Your task to perform on an android device: toggle wifi Image 0: 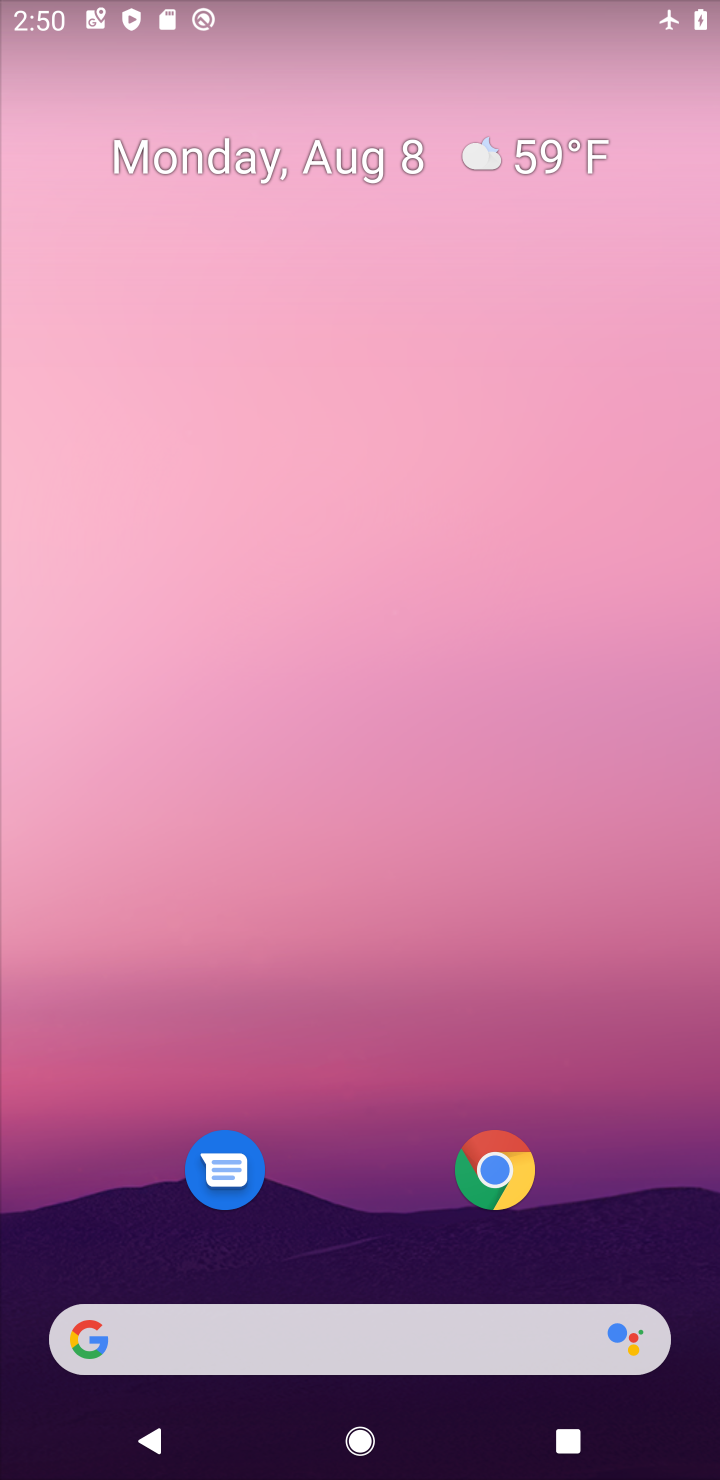
Step 0: drag from (333, 943) to (333, 412)
Your task to perform on an android device: toggle wifi Image 1: 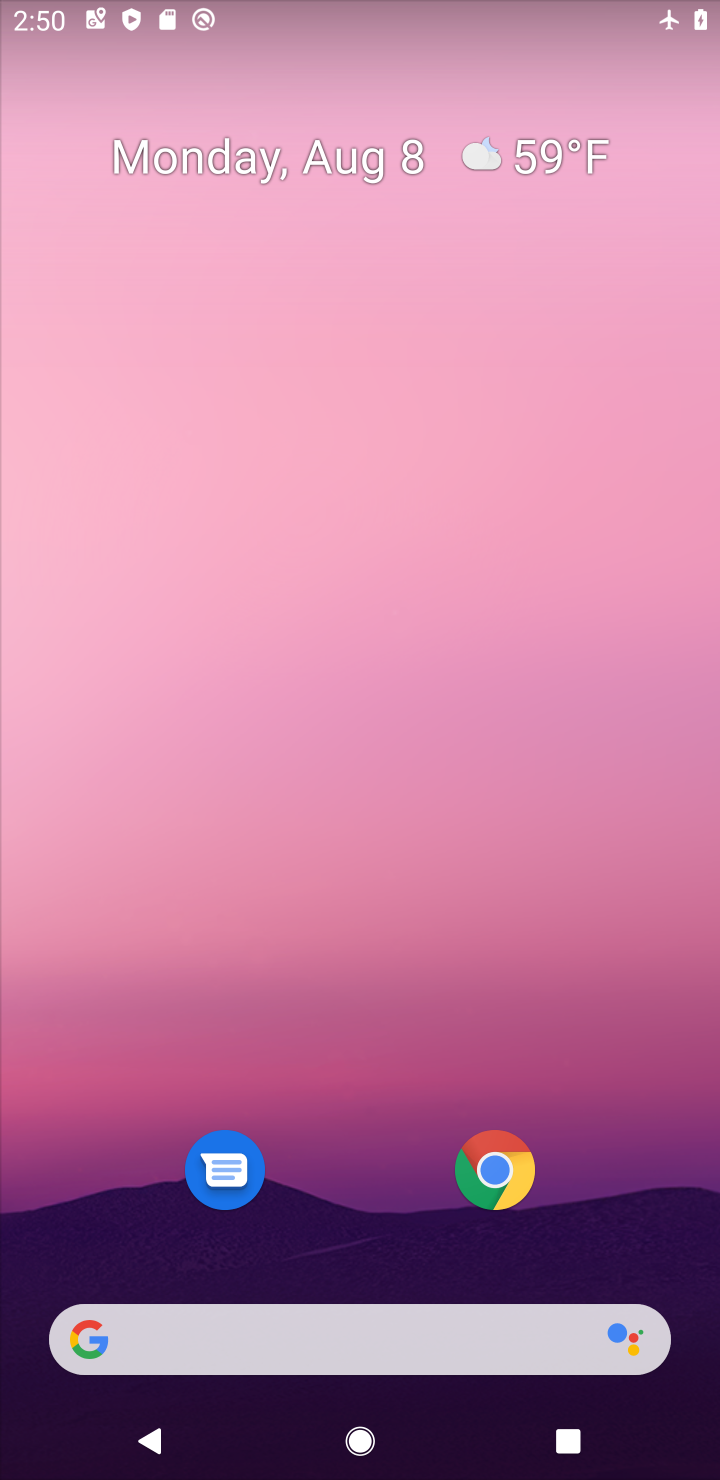
Step 1: drag from (338, 814) to (338, 366)
Your task to perform on an android device: toggle wifi Image 2: 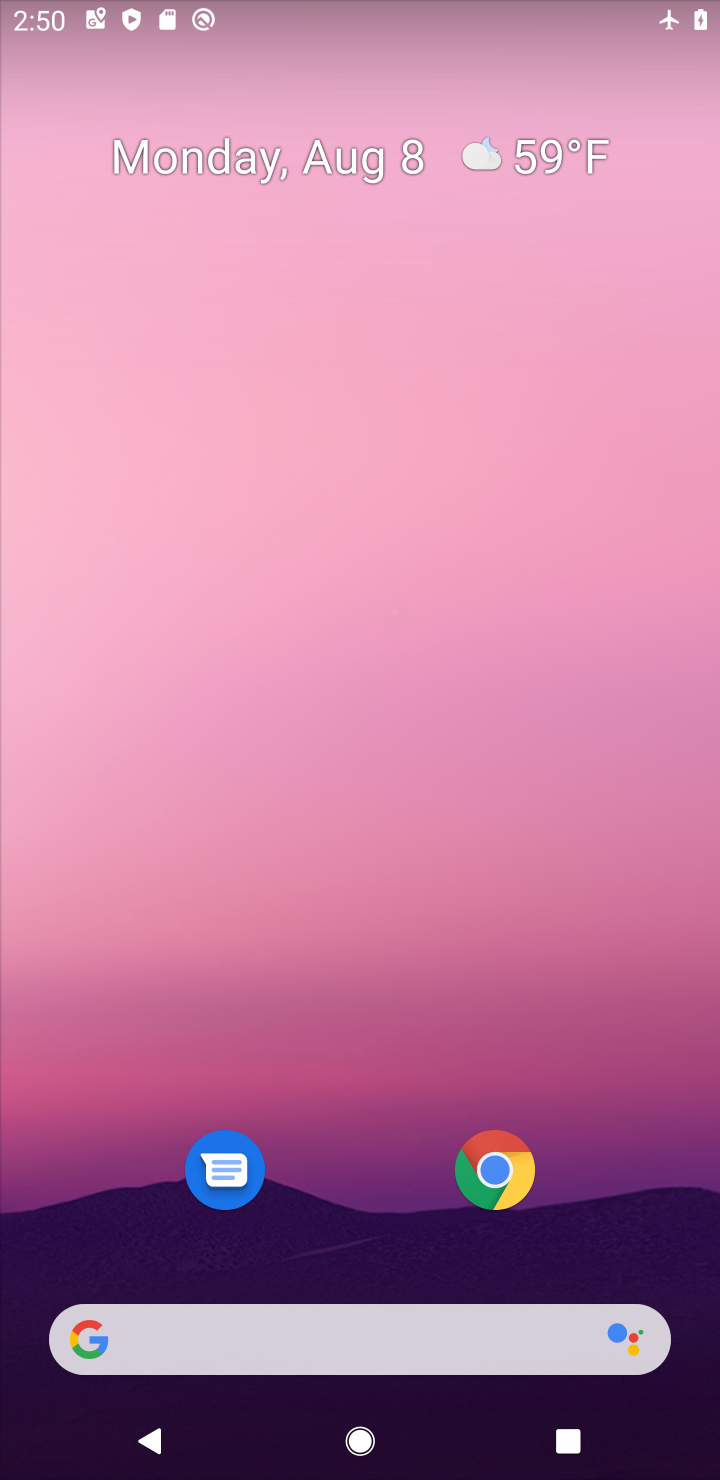
Step 2: drag from (367, 783) to (372, 373)
Your task to perform on an android device: toggle wifi Image 3: 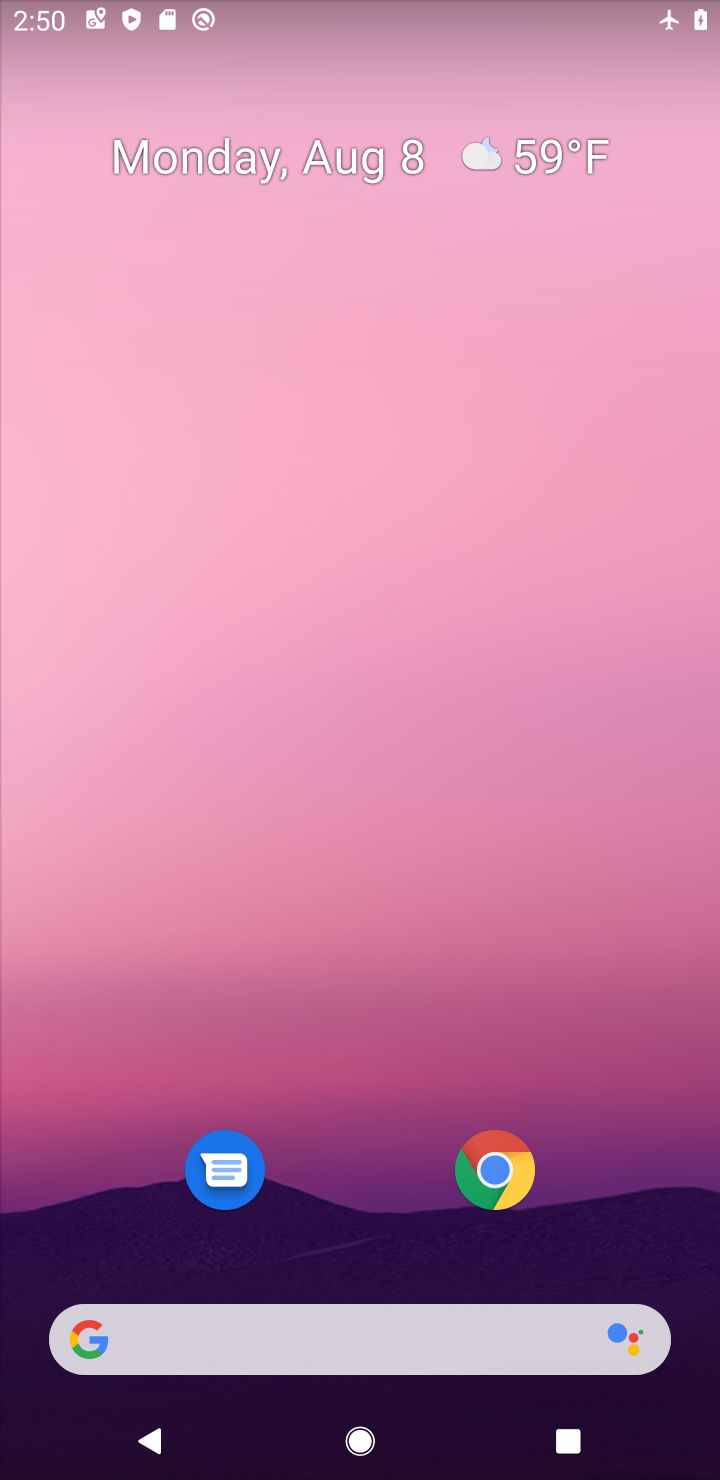
Step 3: drag from (305, 1151) to (373, 561)
Your task to perform on an android device: toggle wifi Image 4: 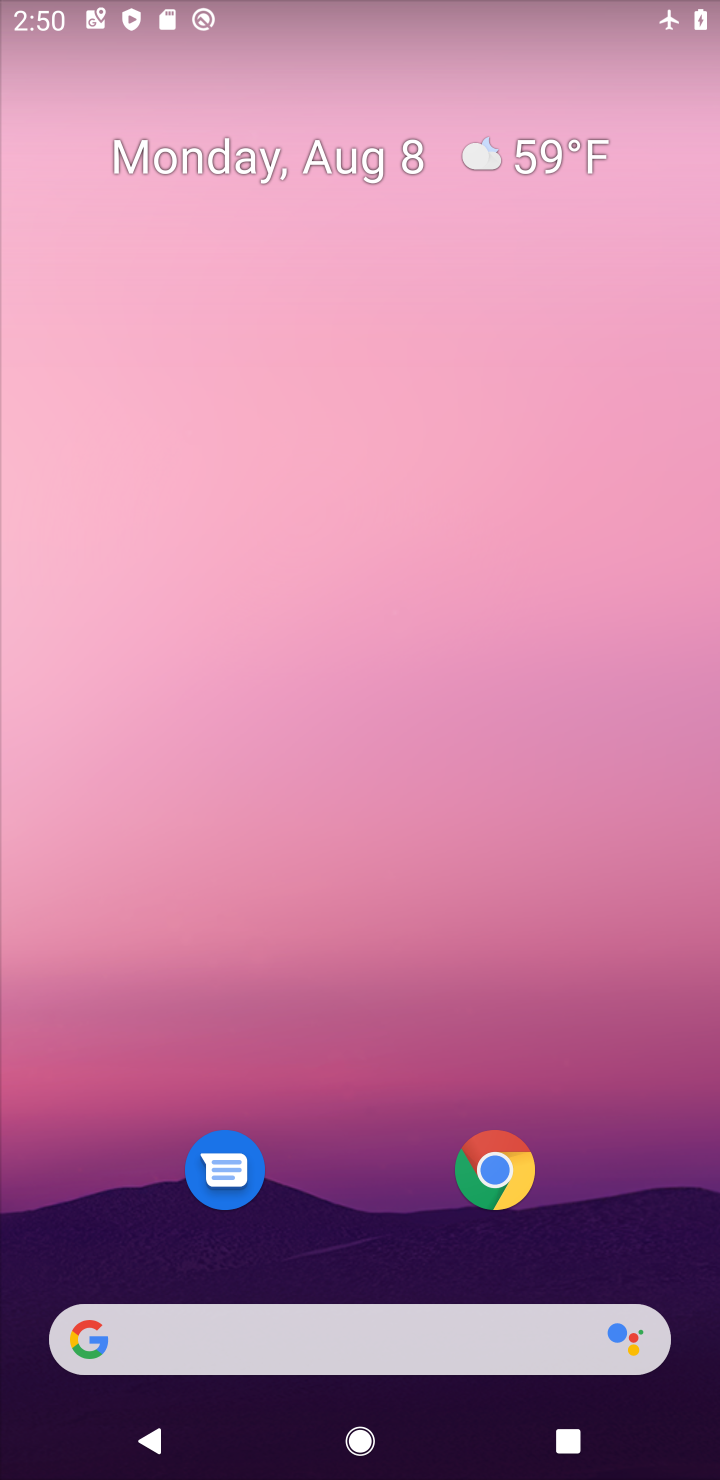
Step 4: drag from (399, 929) to (386, 319)
Your task to perform on an android device: toggle wifi Image 5: 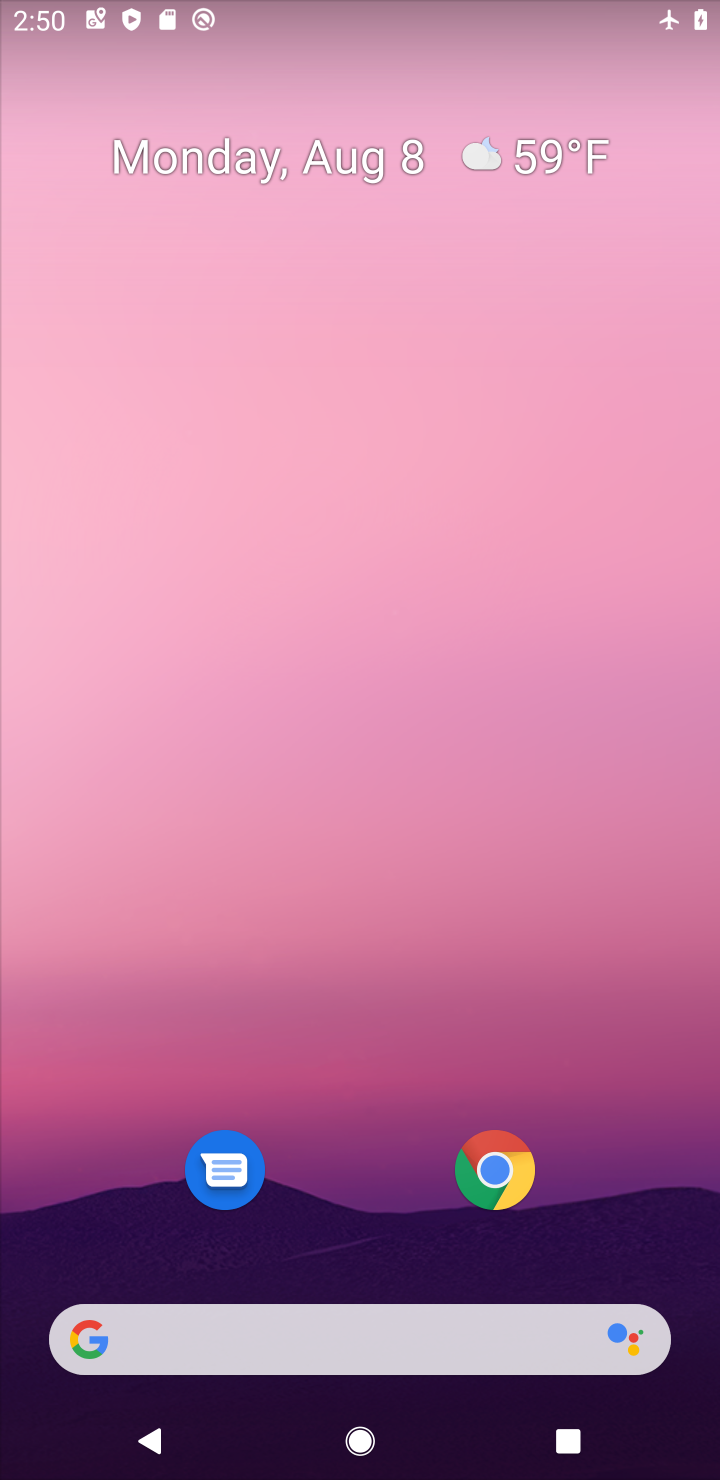
Step 5: drag from (338, 1210) to (349, 264)
Your task to perform on an android device: toggle wifi Image 6: 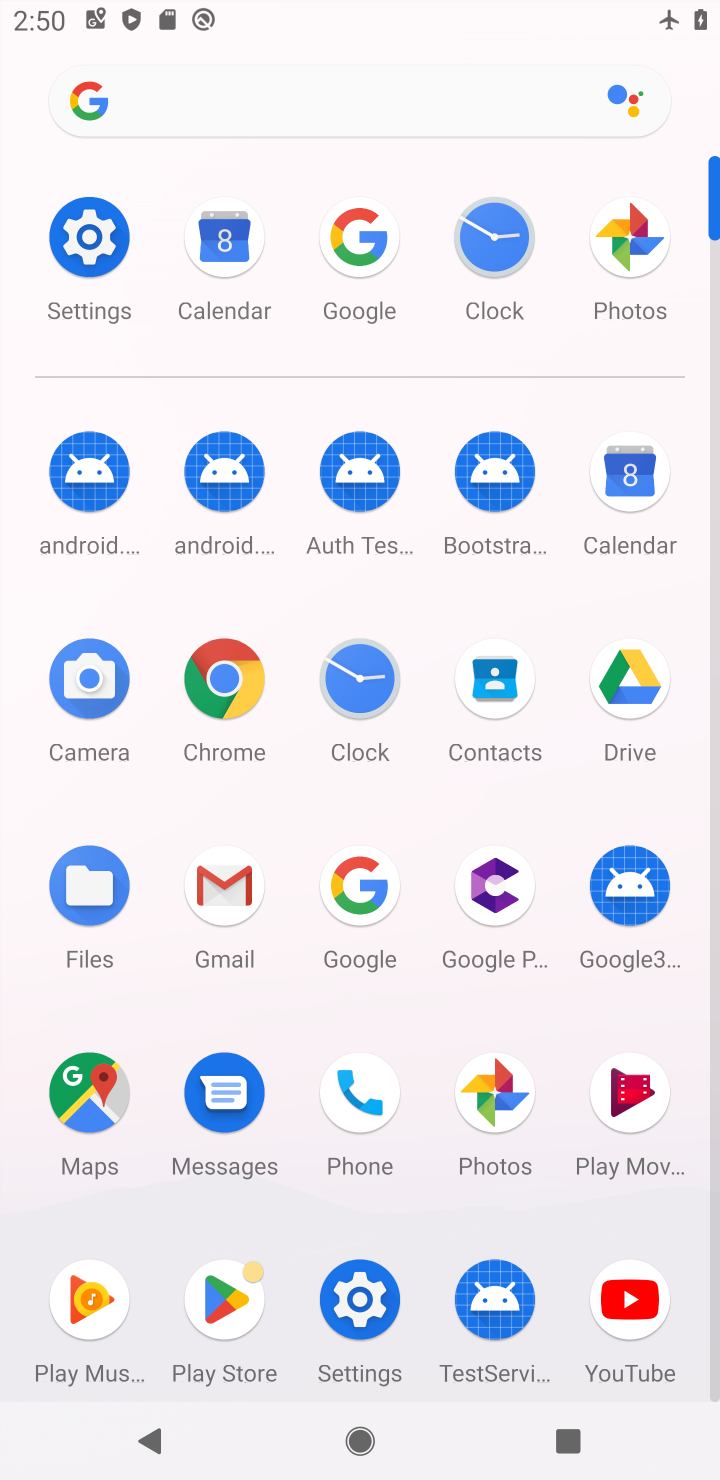
Step 6: click (121, 224)
Your task to perform on an android device: toggle wifi Image 7: 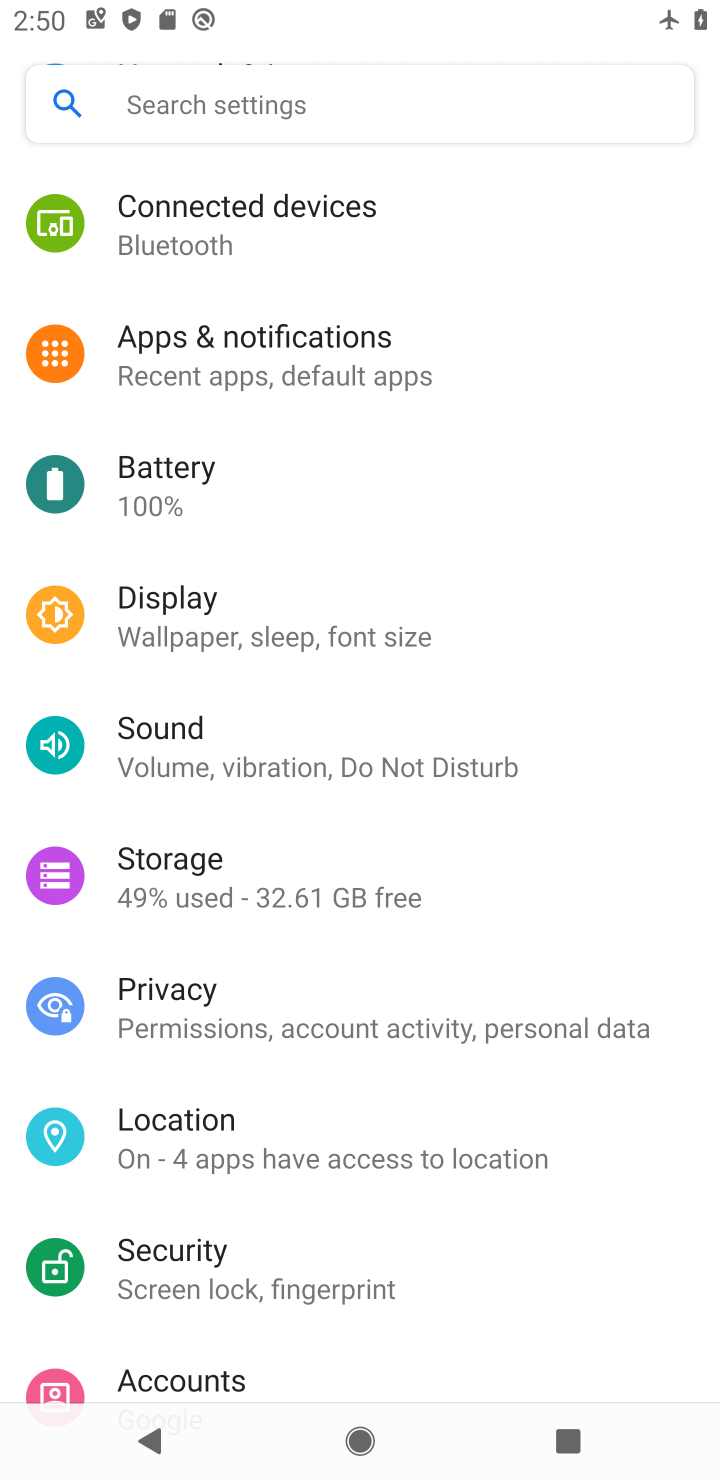
Step 7: drag from (275, 299) to (272, 1015)
Your task to perform on an android device: toggle wifi Image 8: 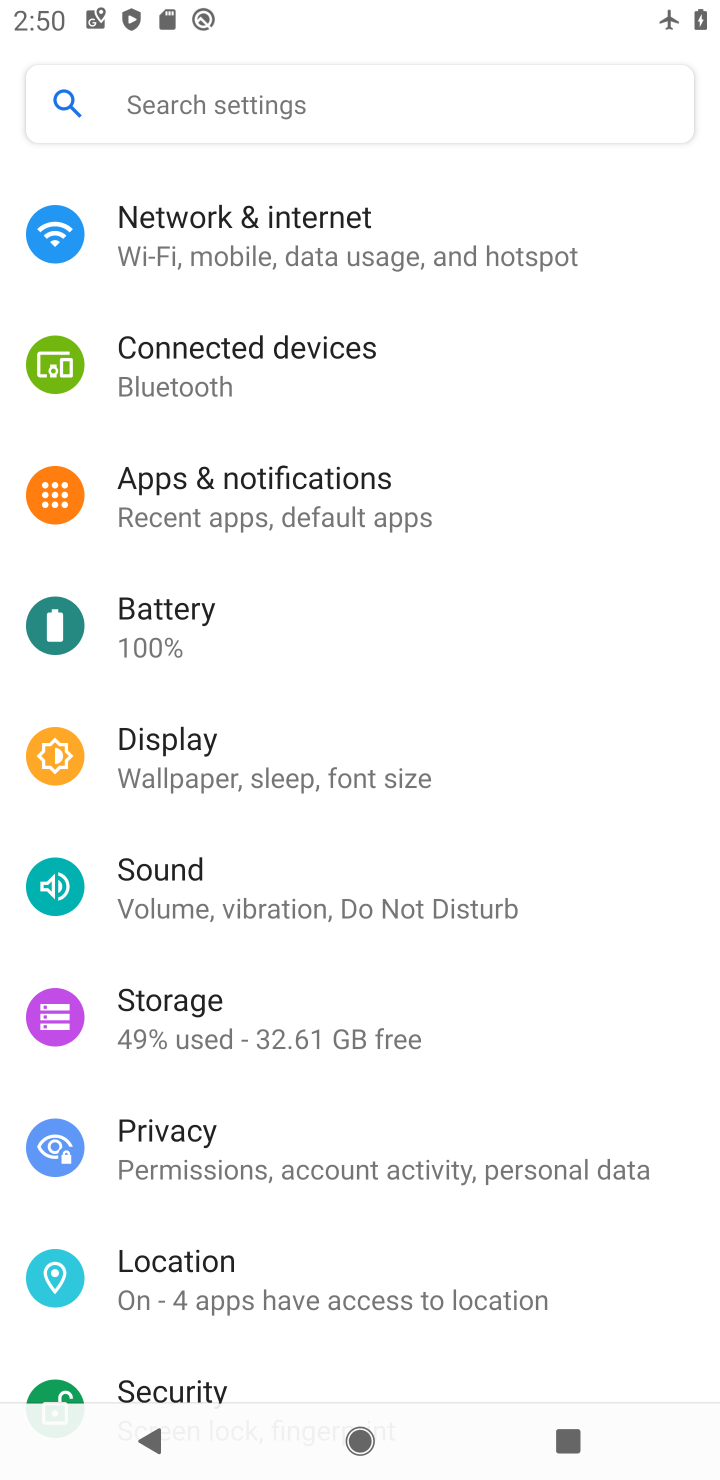
Step 8: click (226, 261)
Your task to perform on an android device: toggle wifi Image 9: 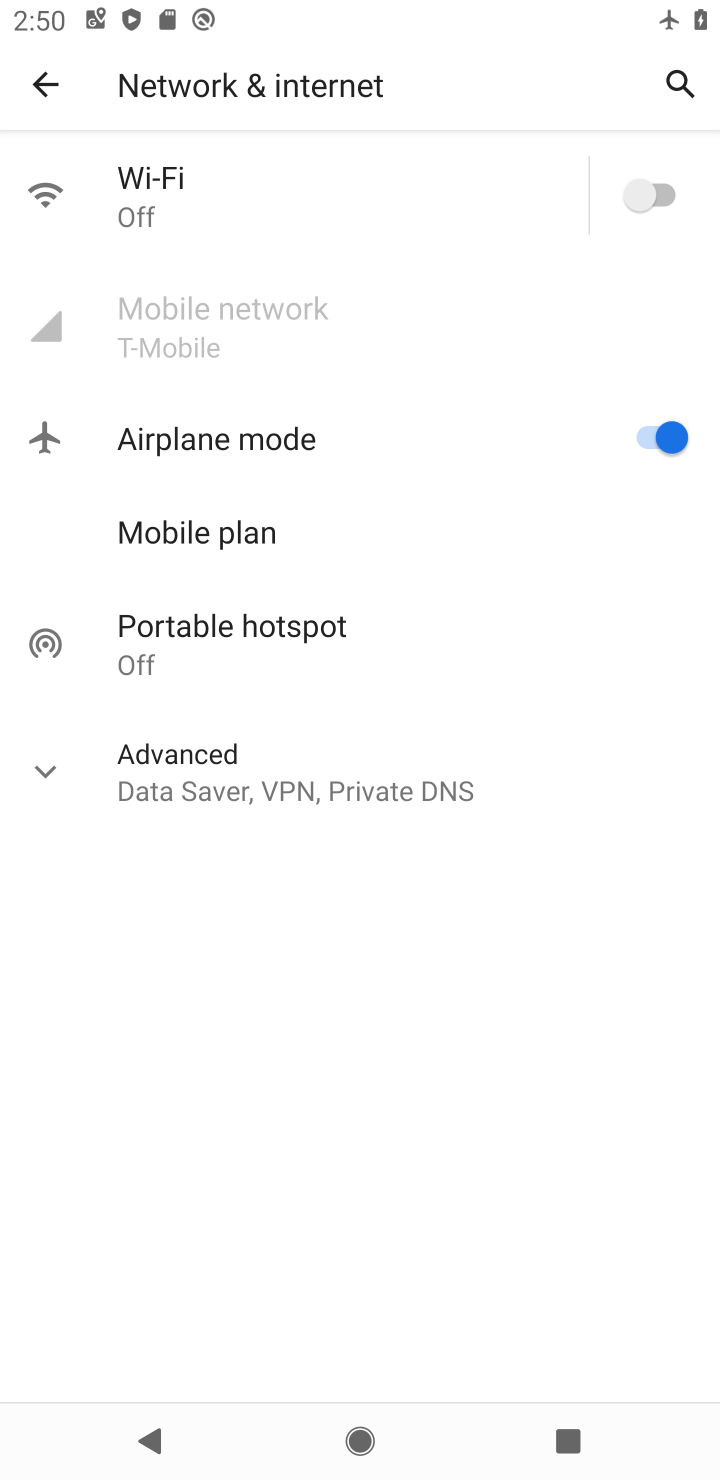
Step 9: click (202, 200)
Your task to perform on an android device: toggle wifi Image 10: 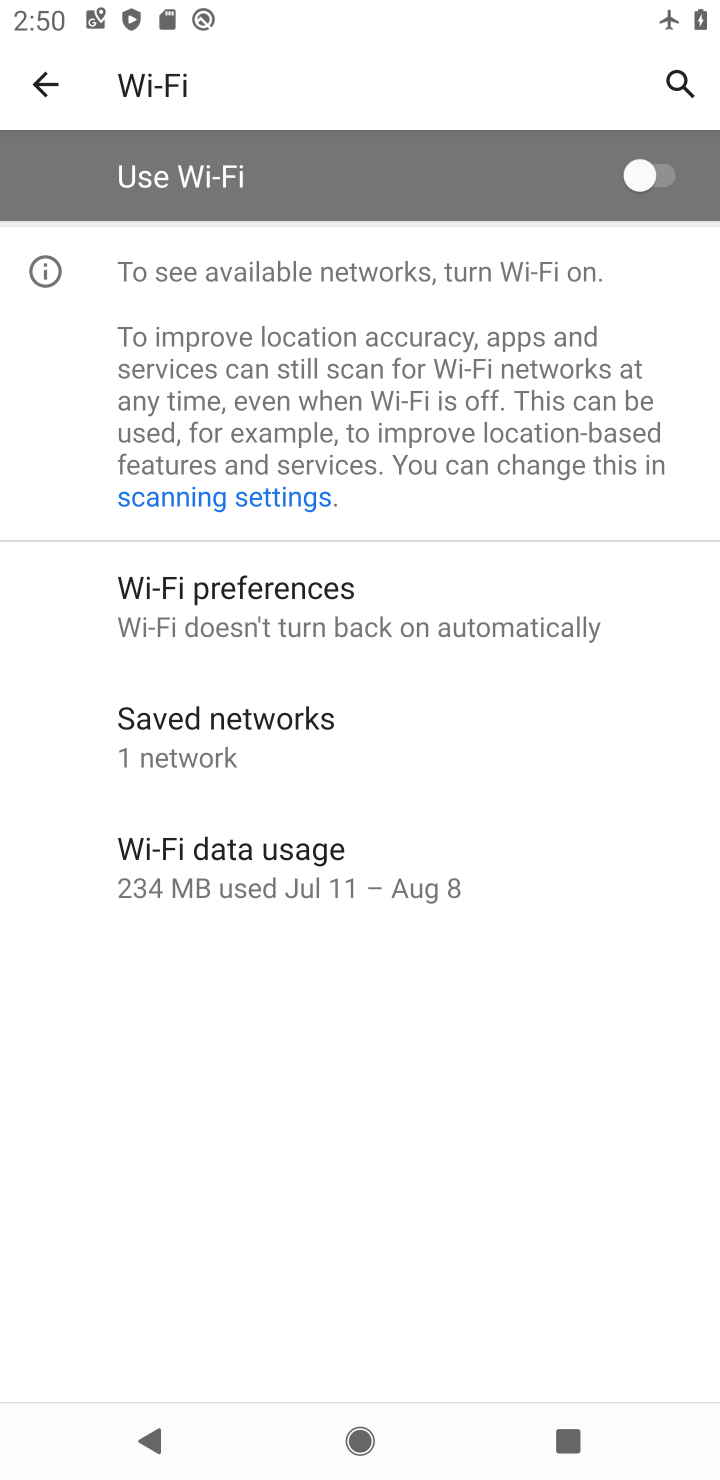
Step 10: click (668, 174)
Your task to perform on an android device: toggle wifi Image 11: 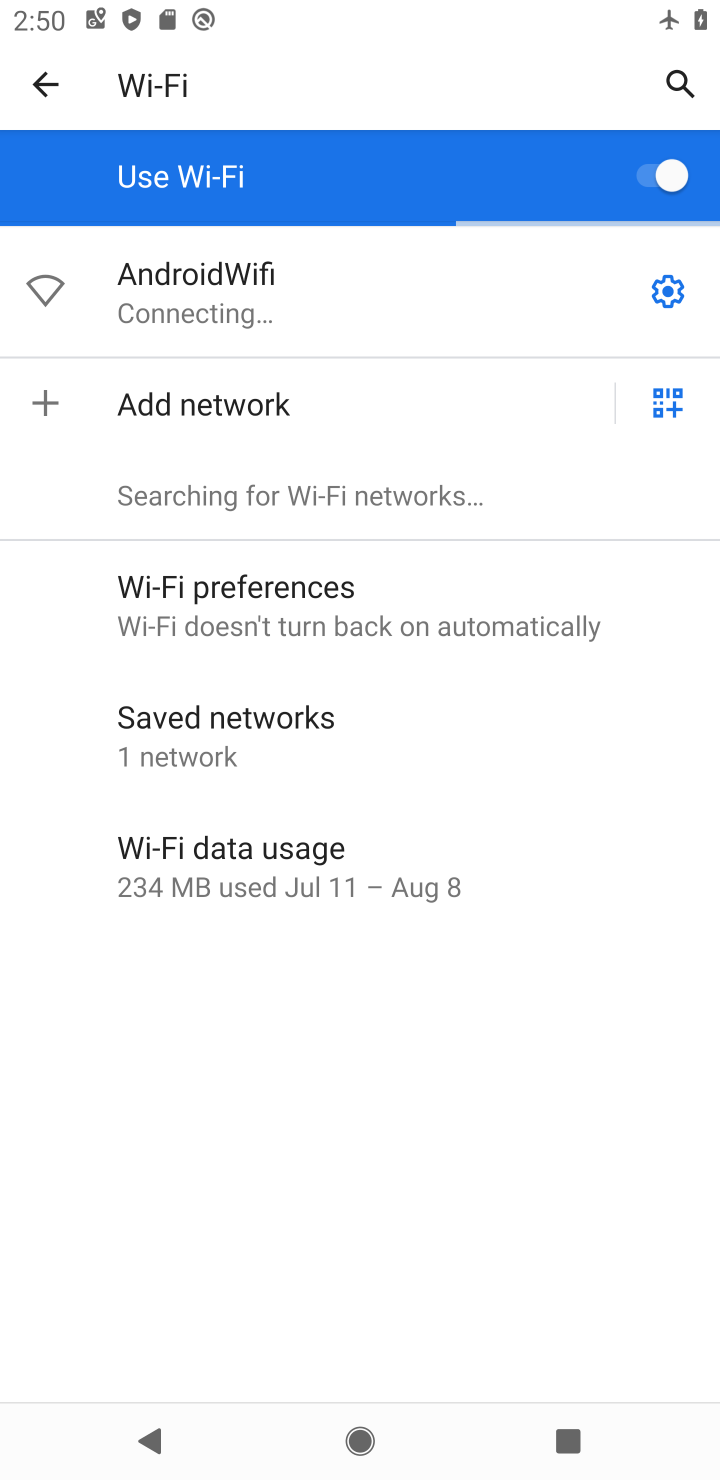
Step 11: task complete